Your task to perform on an android device: What's the weather today? Image 0: 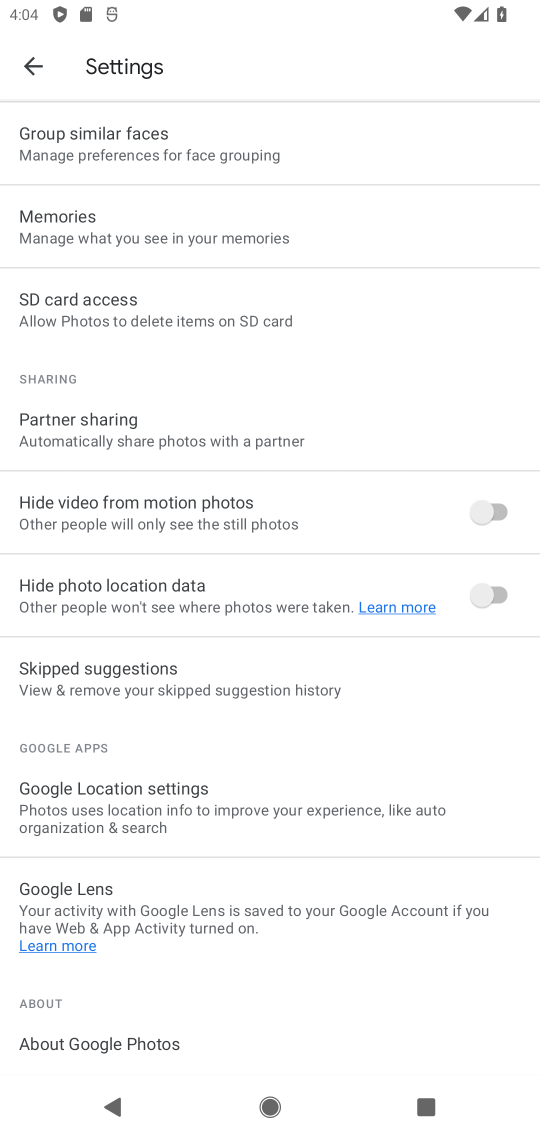
Step 0: press home button
Your task to perform on an android device: What's the weather today? Image 1: 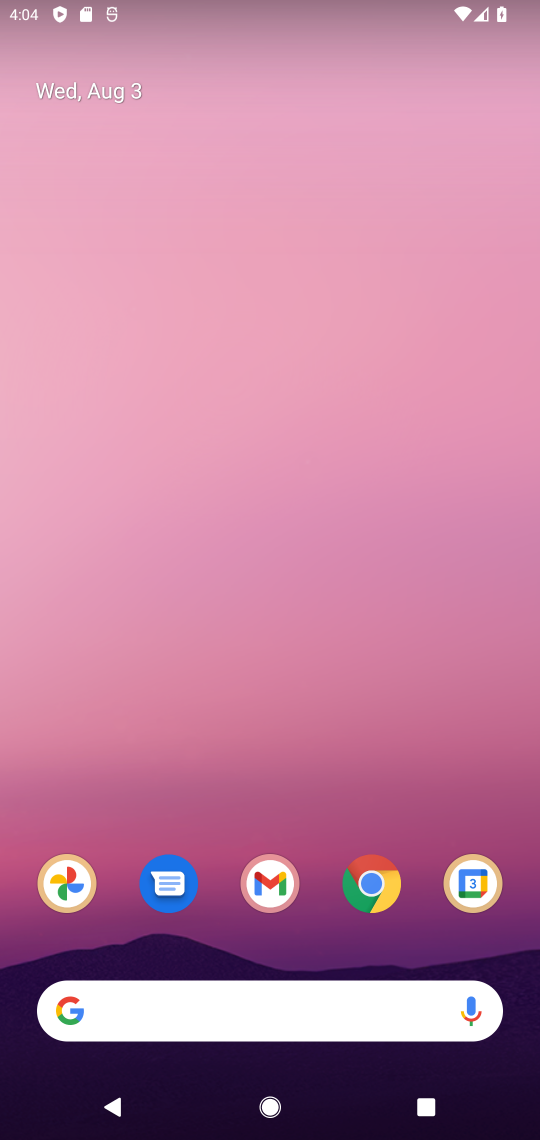
Step 1: click (246, 1029)
Your task to perform on an android device: What's the weather today? Image 2: 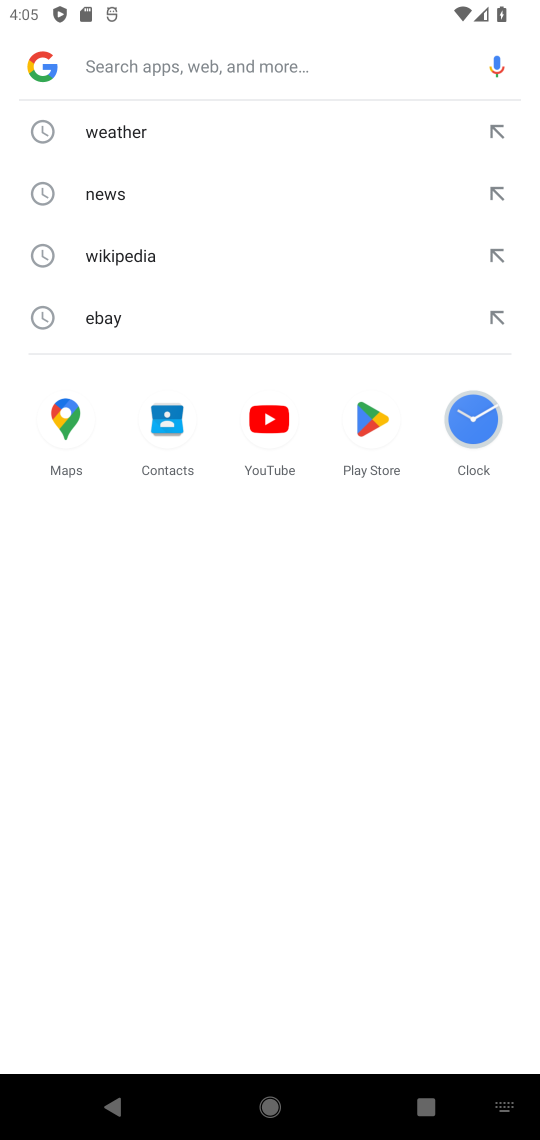
Step 2: click (141, 134)
Your task to perform on an android device: What's the weather today? Image 3: 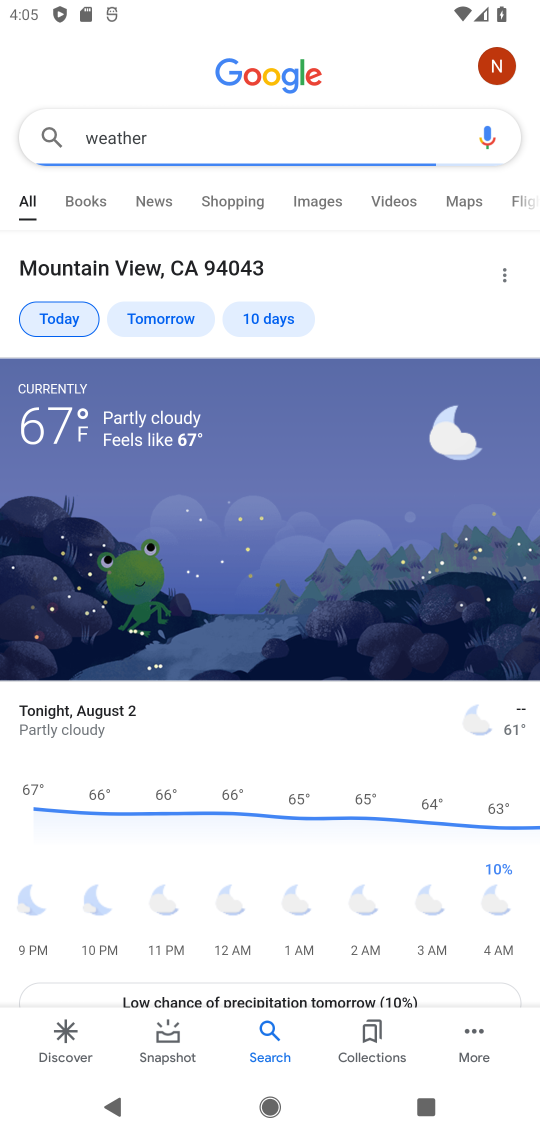
Step 3: click (139, 142)
Your task to perform on an android device: What's the weather today? Image 4: 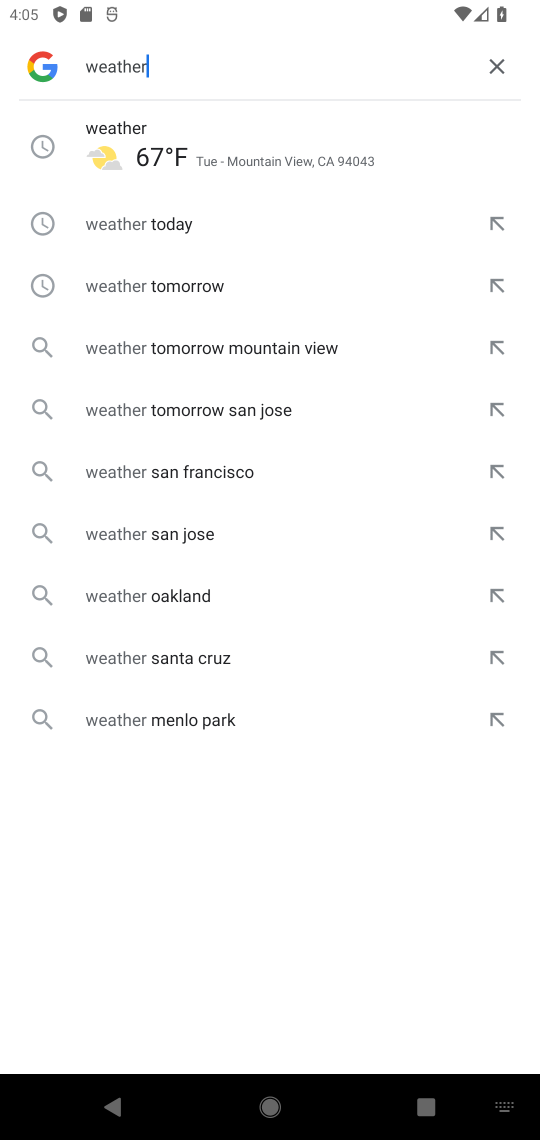
Step 4: click (124, 119)
Your task to perform on an android device: What's the weather today? Image 5: 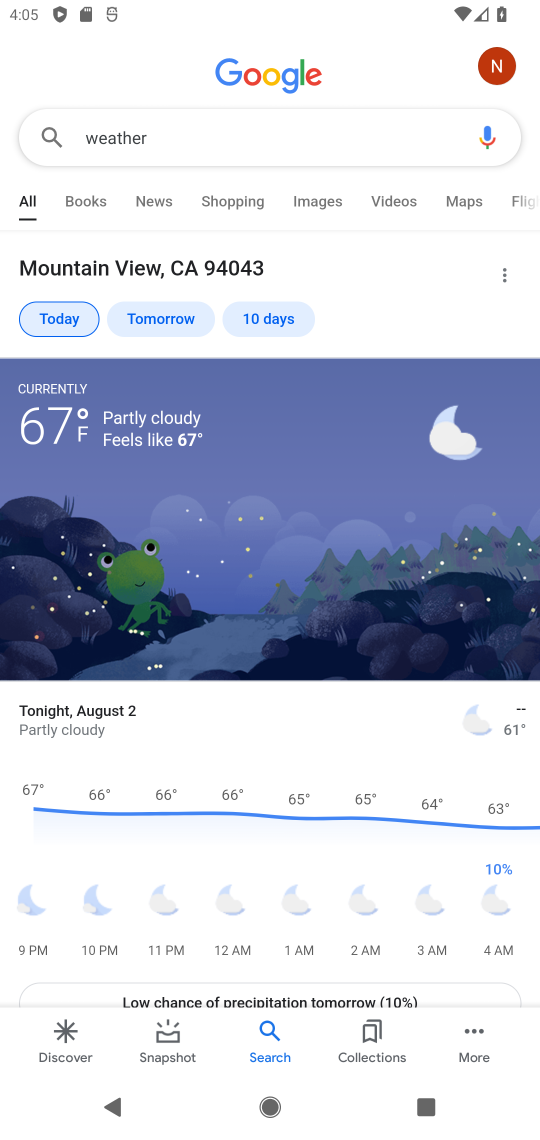
Step 5: task complete